Your task to perform on an android device: Search for pizza restaurants on Maps Image 0: 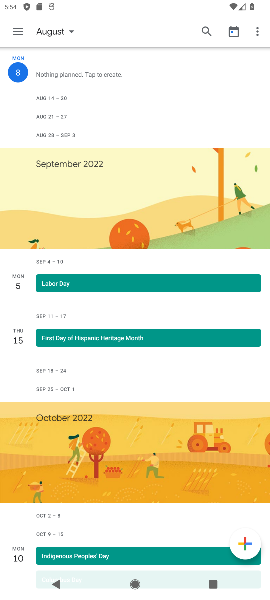
Step 0: press home button
Your task to perform on an android device: Search for pizza restaurants on Maps Image 1: 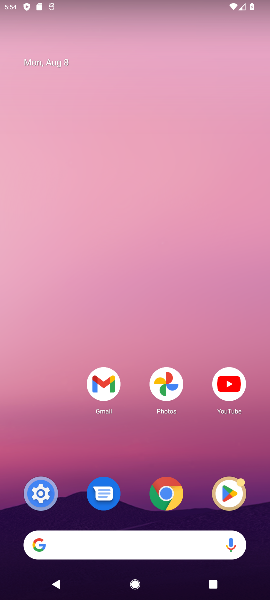
Step 1: drag from (103, 454) to (96, 246)
Your task to perform on an android device: Search for pizza restaurants on Maps Image 2: 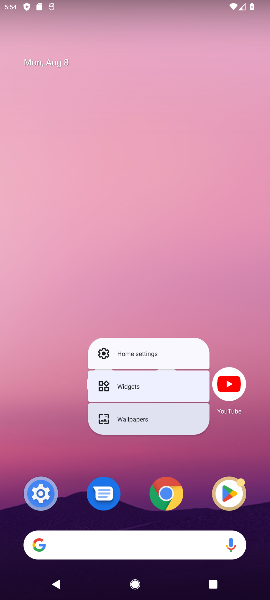
Step 2: click (73, 512)
Your task to perform on an android device: Search for pizza restaurants on Maps Image 3: 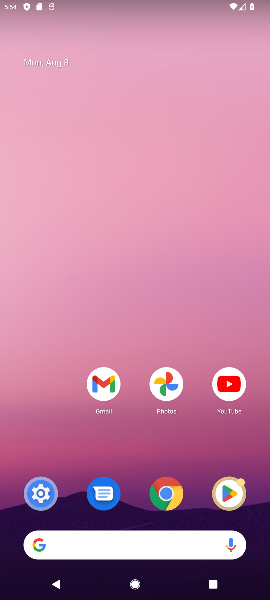
Step 3: drag from (70, 533) to (87, 208)
Your task to perform on an android device: Search for pizza restaurants on Maps Image 4: 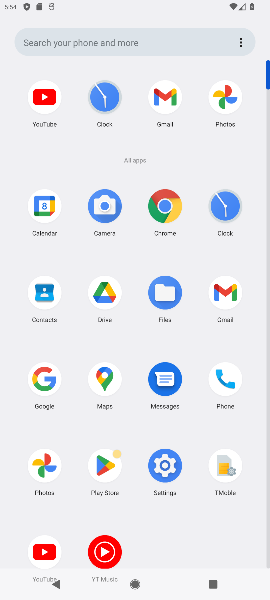
Step 4: click (106, 382)
Your task to perform on an android device: Search for pizza restaurants on Maps Image 5: 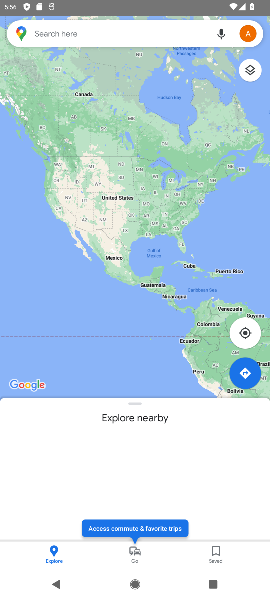
Step 5: click (92, 30)
Your task to perform on an android device: Search for pizza restaurants on Maps Image 6: 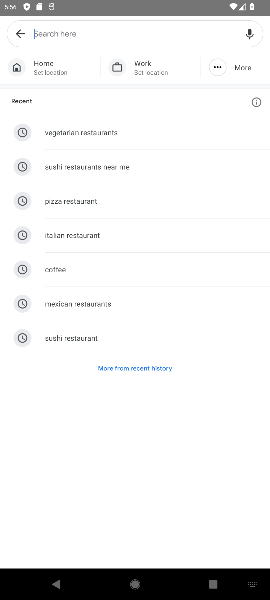
Step 6: click (63, 208)
Your task to perform on an android device: Search for pizza restaurants on Maps Image 7: 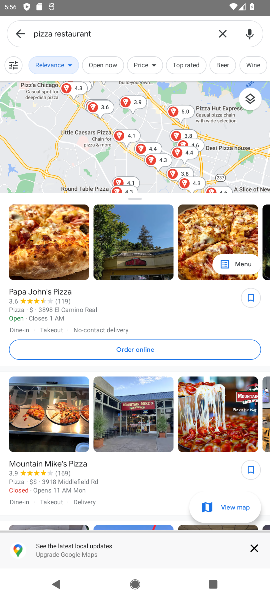
Step 7: task complete